Your task to perform on an android device: turn on data saver in the chrome app Image 0: 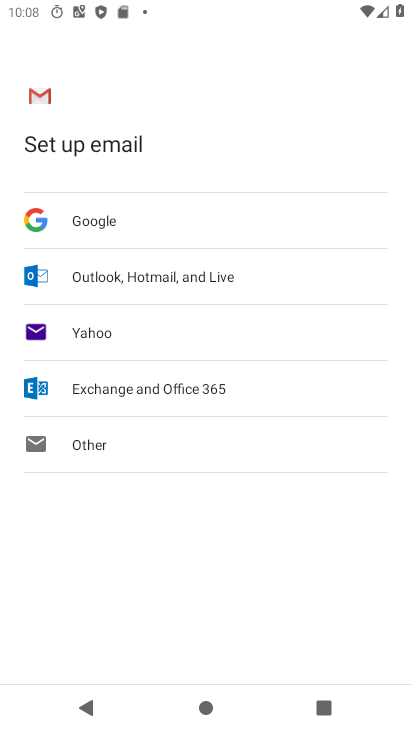
Step 0: press home button
Your task to perform on an android device: turn on data saver in the chrome app Image 1: 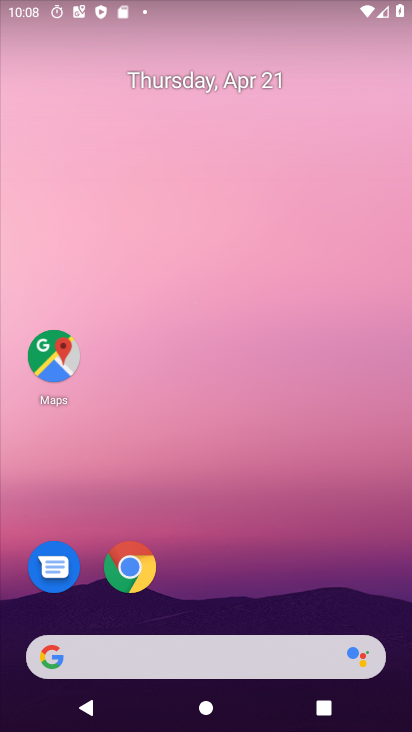
Step 1: click (135, 581)
Your task to perform on an android device: turn on data saver in the chrome app Image 2: 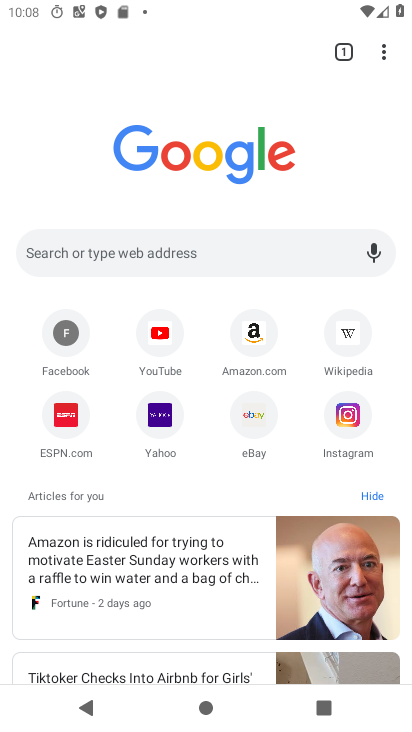
Step 2: click (386, 61)
Your task to perform on an android device: turn on data saver in the chrome app Image 3: 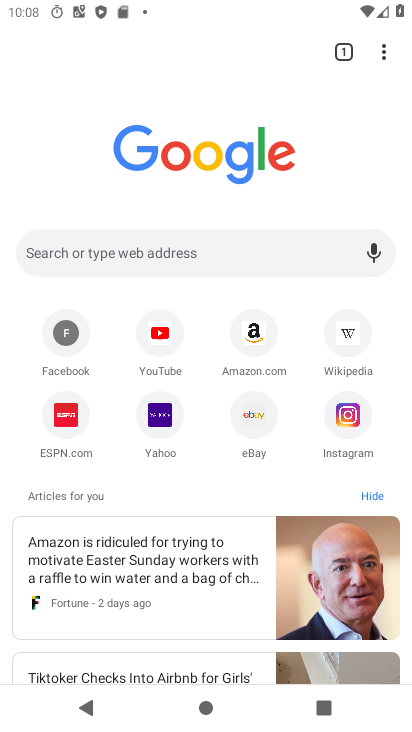
Step 3: click (384, 59)
Your task to perform on an android device: turn on data saver in the chrome app Image 4: 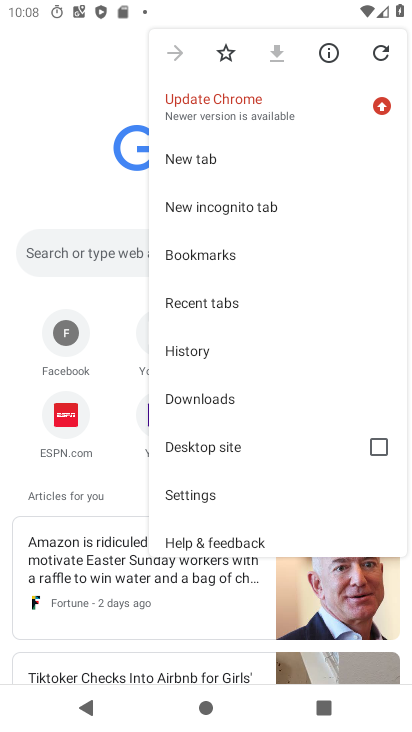
Step 4: click (206, 499)
Your task to perform on an android device: turn on data saver in the chrome app Image 5: 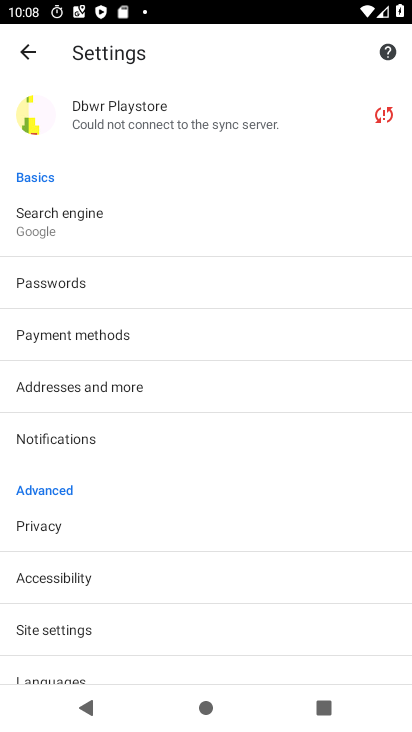
Step 5: drag from (67, 625) to (169, 179)
Your task to perform on an android device: turn on data saver in the chrome app Image 6: 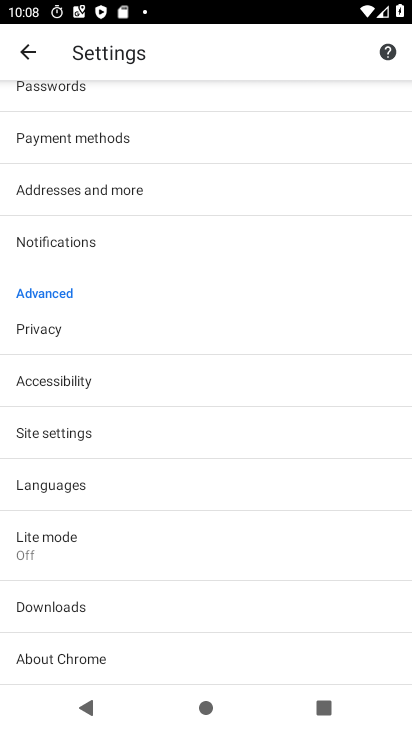
Step 6: click (96, 558)
Your task to perform on an android device: turn on data saver in the chrome app Image 7: 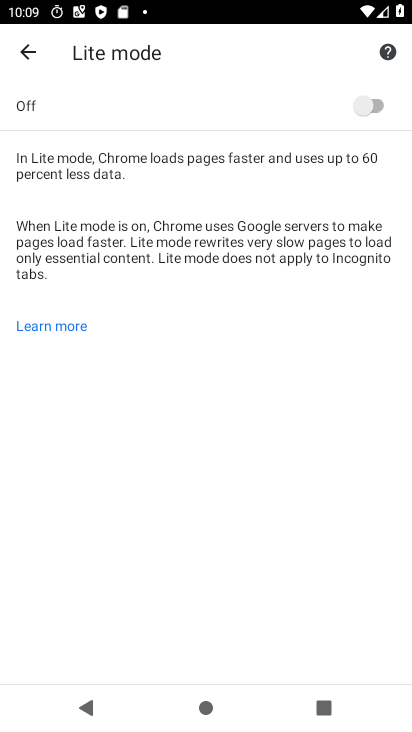
Step 7: click (377, 109)
Your task to perform on an android device: turn on data saver in the chrome app Image 8: 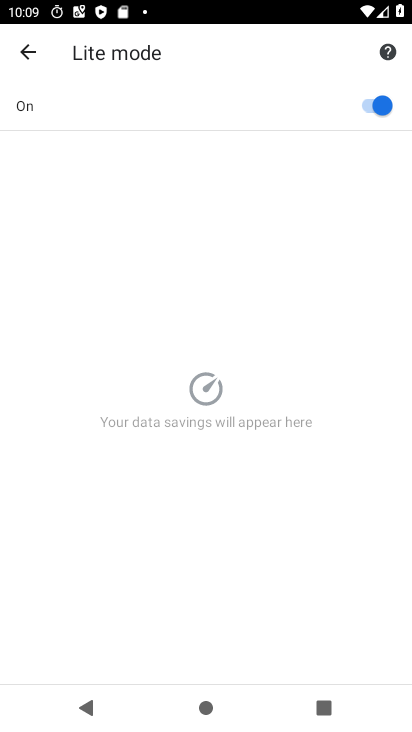
Step 8: task complete